Your task to perform on an android device: turn pop-ups off in chrome Image 0: 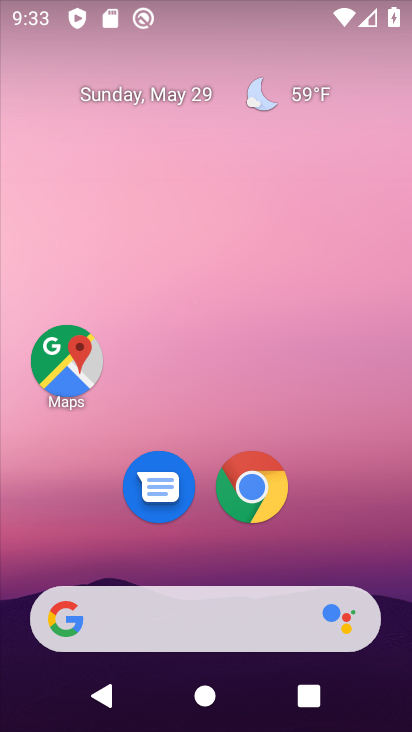
Step 0: click (247, 492)
Your task to perform on an android device: turn pop-ups off in chrome Image 1: 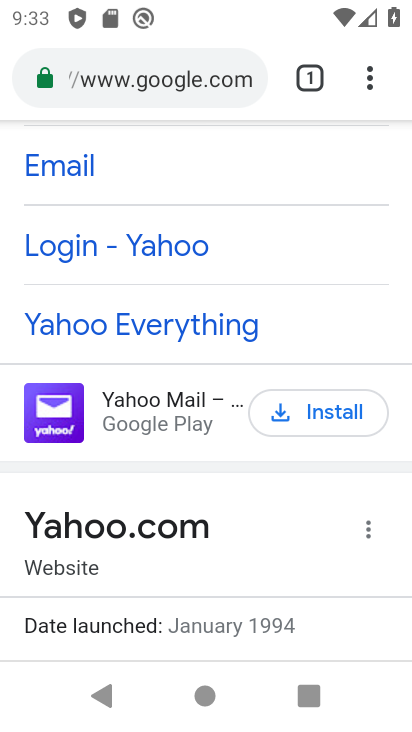
Step 1: click (364, 75)
Your task to perform on an android device: turn pop-ups off in chrome Image 2: 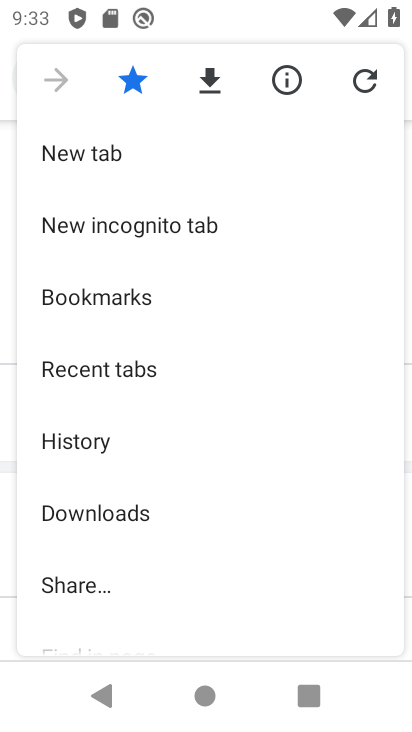
Step 2: drag from (239, 640) to (251, 305)
Your task to perform on an android device: turn pop-ups off in chrome Image 3: 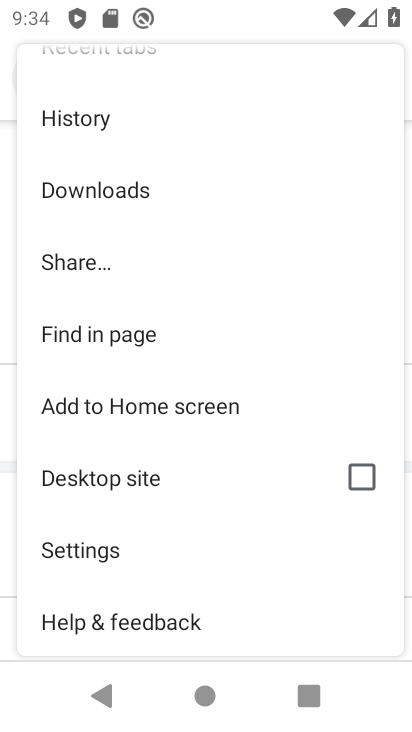
Step 3: drag from (224, 601) to (237, 308)
Your task to perform on an android device: turn pop-ups off in chrome Image 4: 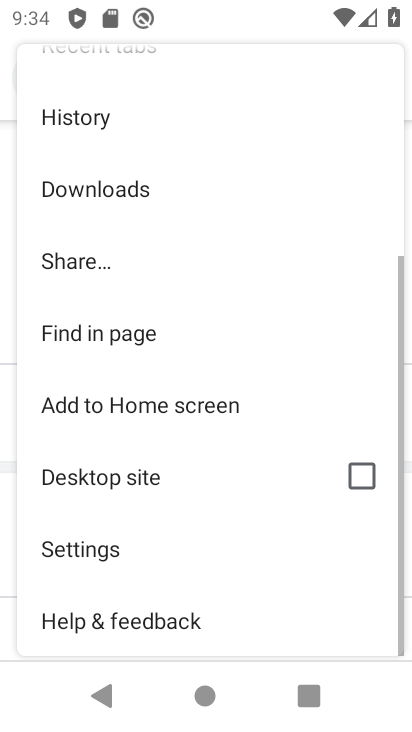
Step 4: click (60, 550)
Your task to perform on an android device: turn pop-ups off in chrome Image 5: 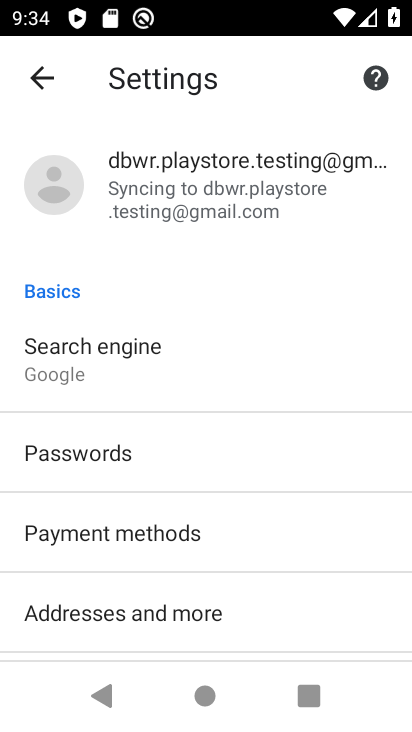
Step 5: drag from (248, 608) to (255, 261)
Your task to perform on an android device: turn pop-ups off in chrome Image 6: 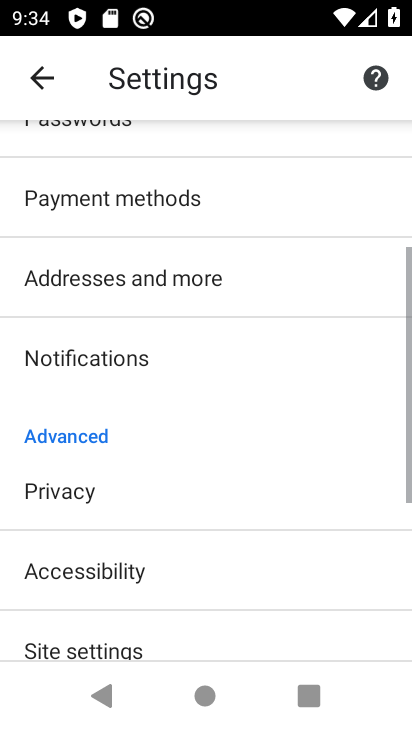
Step 6: drag from (260, 602) to (241, 240)
Your task to perform on an android device: turn pop-ups off in chrome Image 7: 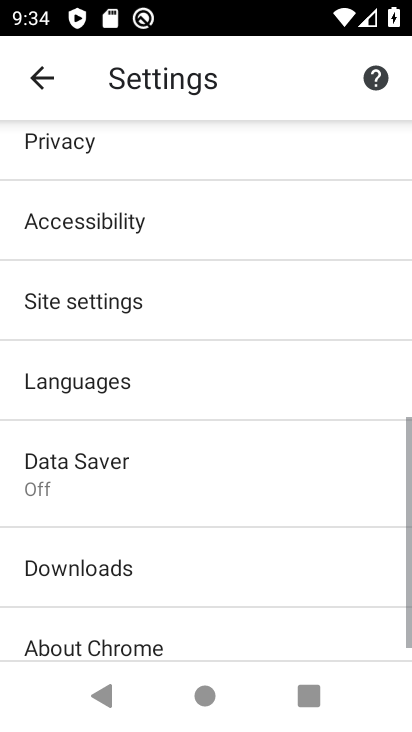
Step 7: drag from (180, 635) to (177, 348)
Your task to perform on an android device: turn pop-ups off in chrome Image 8: 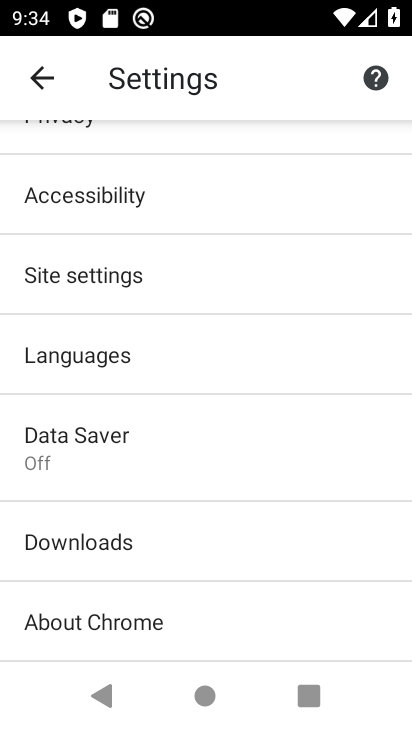
Step 8: drag from (270, 207) to (291, 457)
Your task to perform on an android device: turn pop-ups off in chrome Image 9: 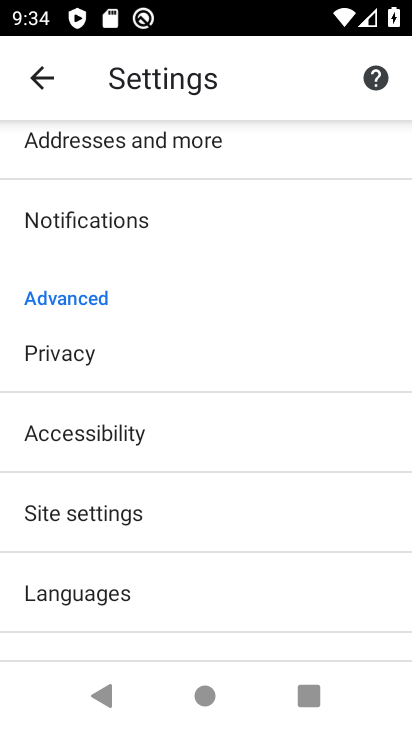
Step 9: click (82, 518)
Your task to perform on an android device: turn pop-ups off in chrome Image 10: 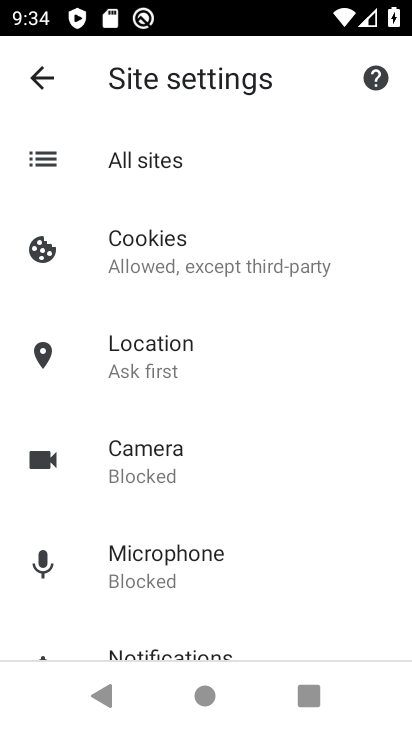
Step 10: drag from (307, 631) to (316, 253)
Your task to perform on an android device: turn pop-ups off in chrome Image 11: 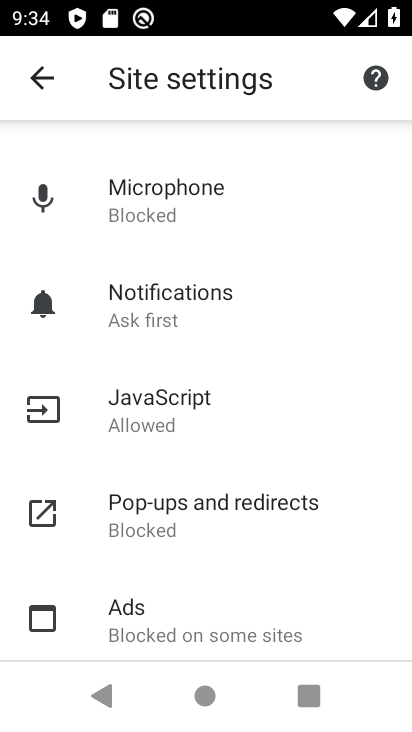
Step 11: drag from (275, 597) to (296, 358)
Your task to perform on an android device: turn pop-ups off in chrome Image 12: 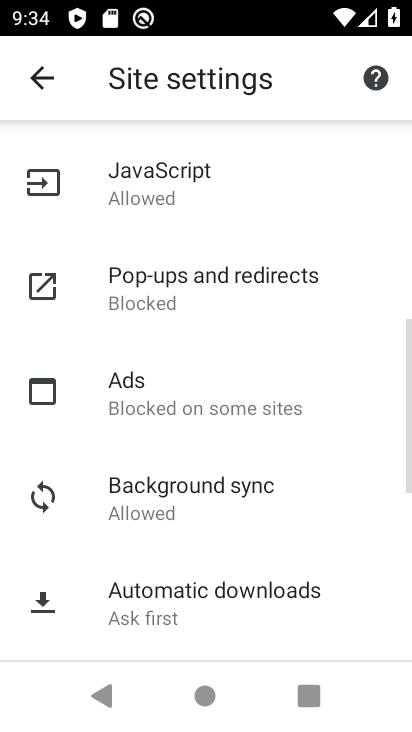
Step 12: click (35, 88)
Your task to perform on an android device: turn pop-ups off in chrome Image 13: 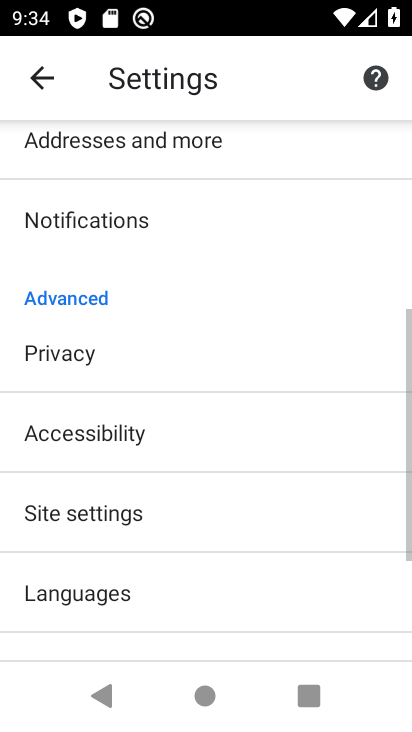
Step 13: click (84, 515)
Your task to perform on an android device: turn pop-ups off in chrome Image 14: 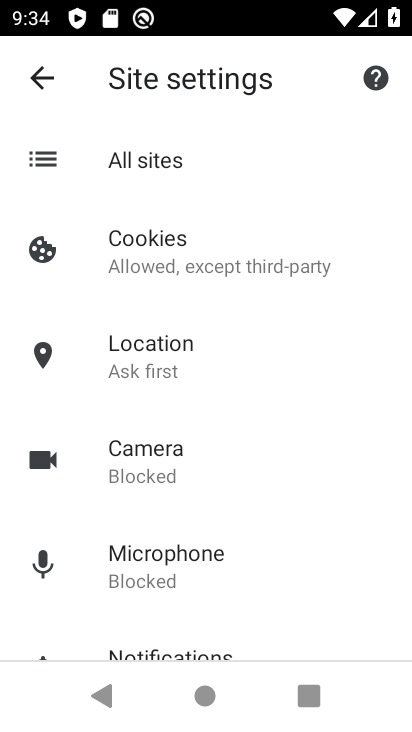
Step 14: drag from (271, 640) to (301, 143)
Your task to perform on an android device: turn pop-ups off in chrome Image 15: 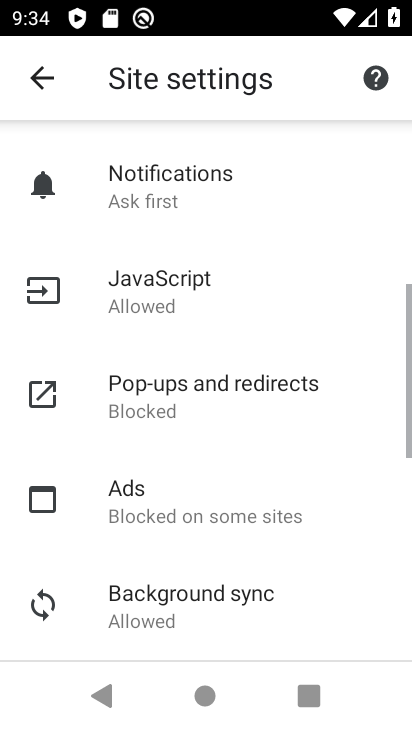
Step 15: click (173, 390)
Your task to perform on an android device: turn pop-ups off in chrome Image 16: 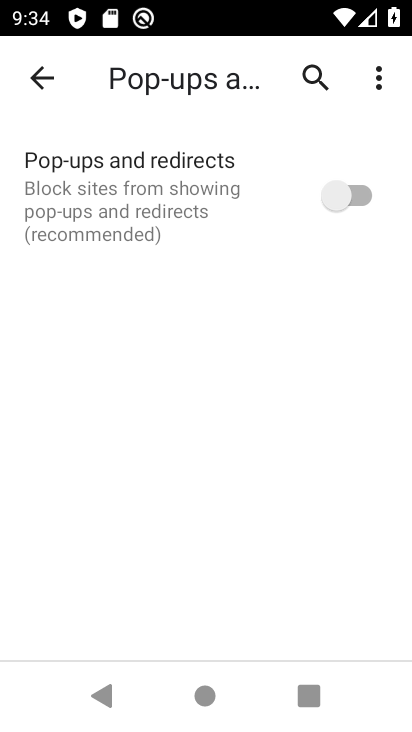
Step 16: task complete